Your task to perform on an android device: Open settings Image 0: 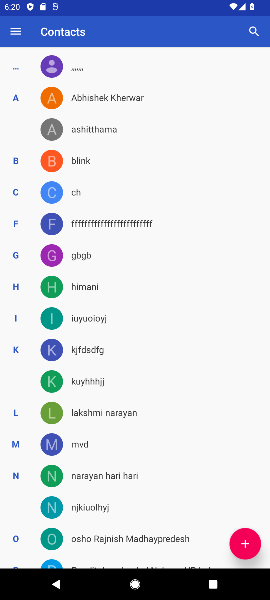
Step 0: press home button
Your task to perform on an android device: Open settings Image 1: 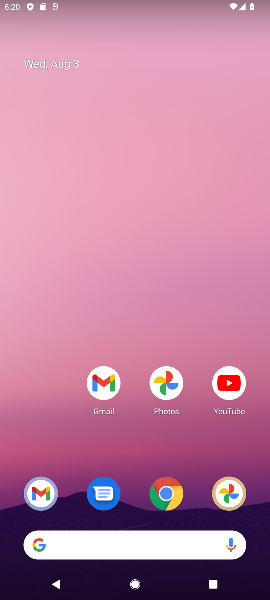
Step 1: drag from (137, 497) to (134, 14)
Your task to perform on an android device: Open settings Image 2: 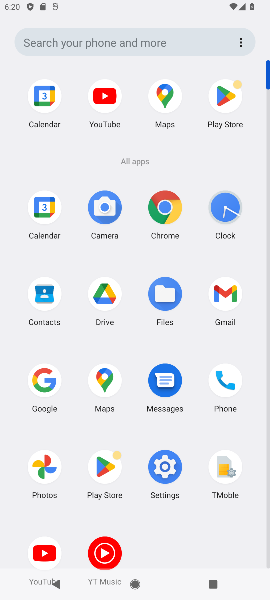
Step 2: click (168, 464)
Your task to perform on an android device: Open settings Image 3: 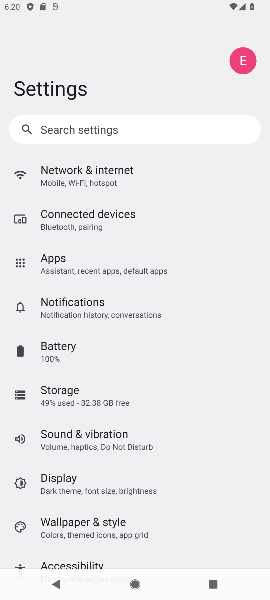
Step 3: task complete